Your task to perform on an android device: Open notification settings Image 0: 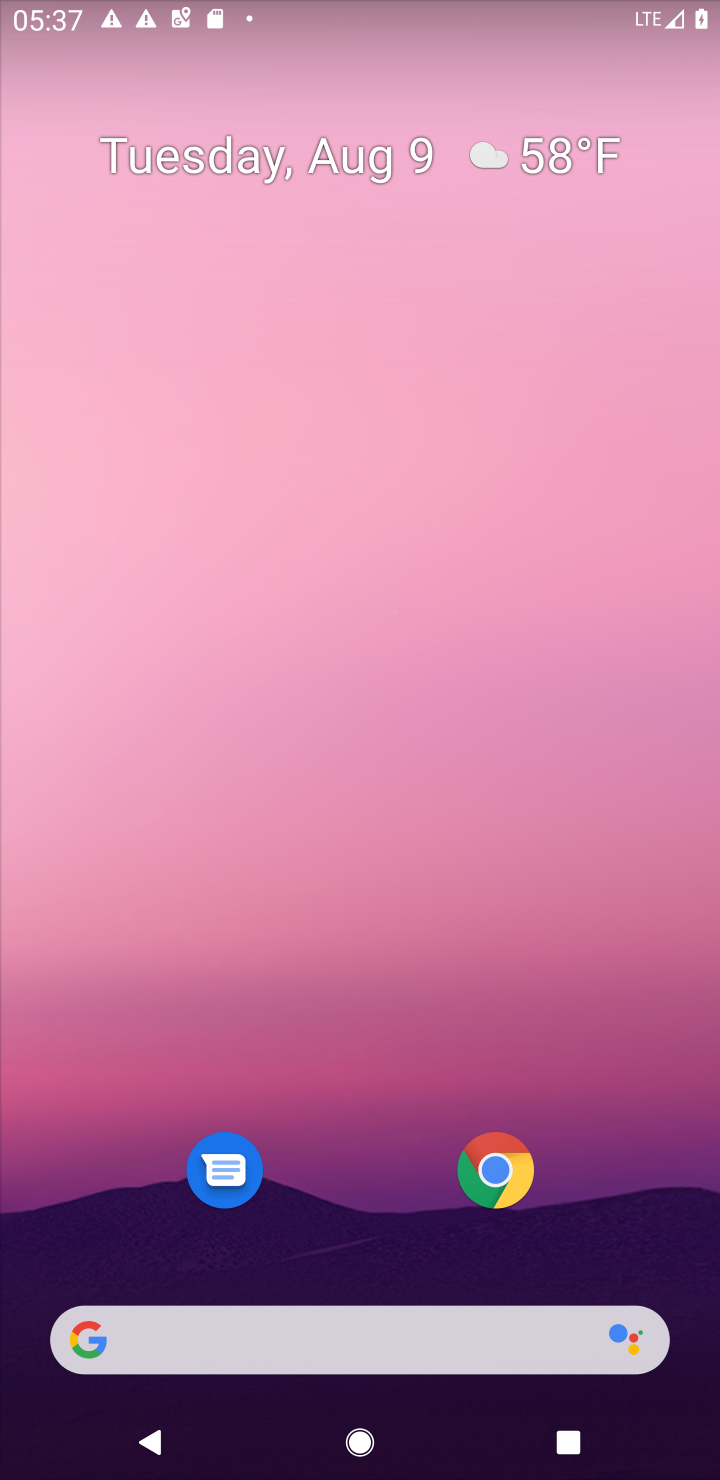
Step 0: drag from (303, 1129) to (302, 258)
Your task to perform on an android device: Open notification settings Image 1: 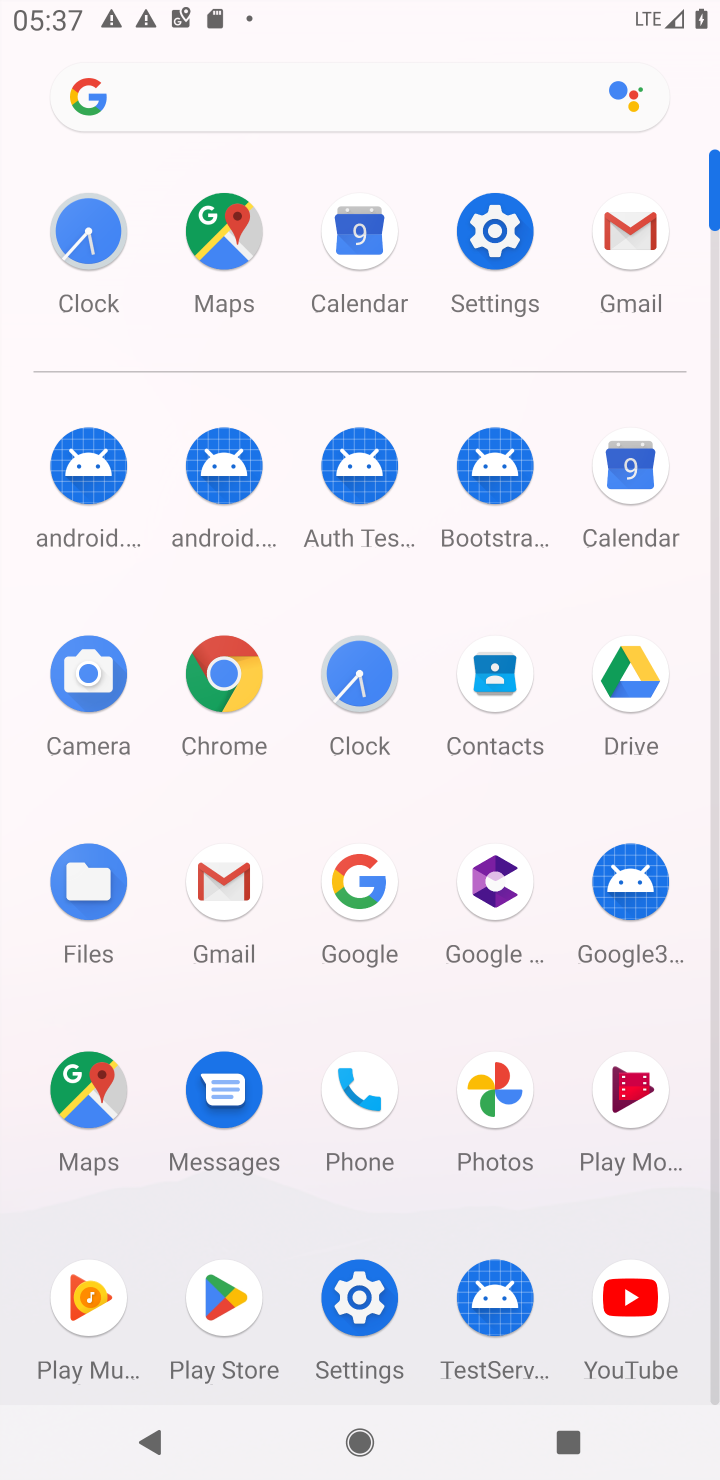
Step 1: click (478, 217)
Your task to perform on an android device: Open notification settings Image 2: 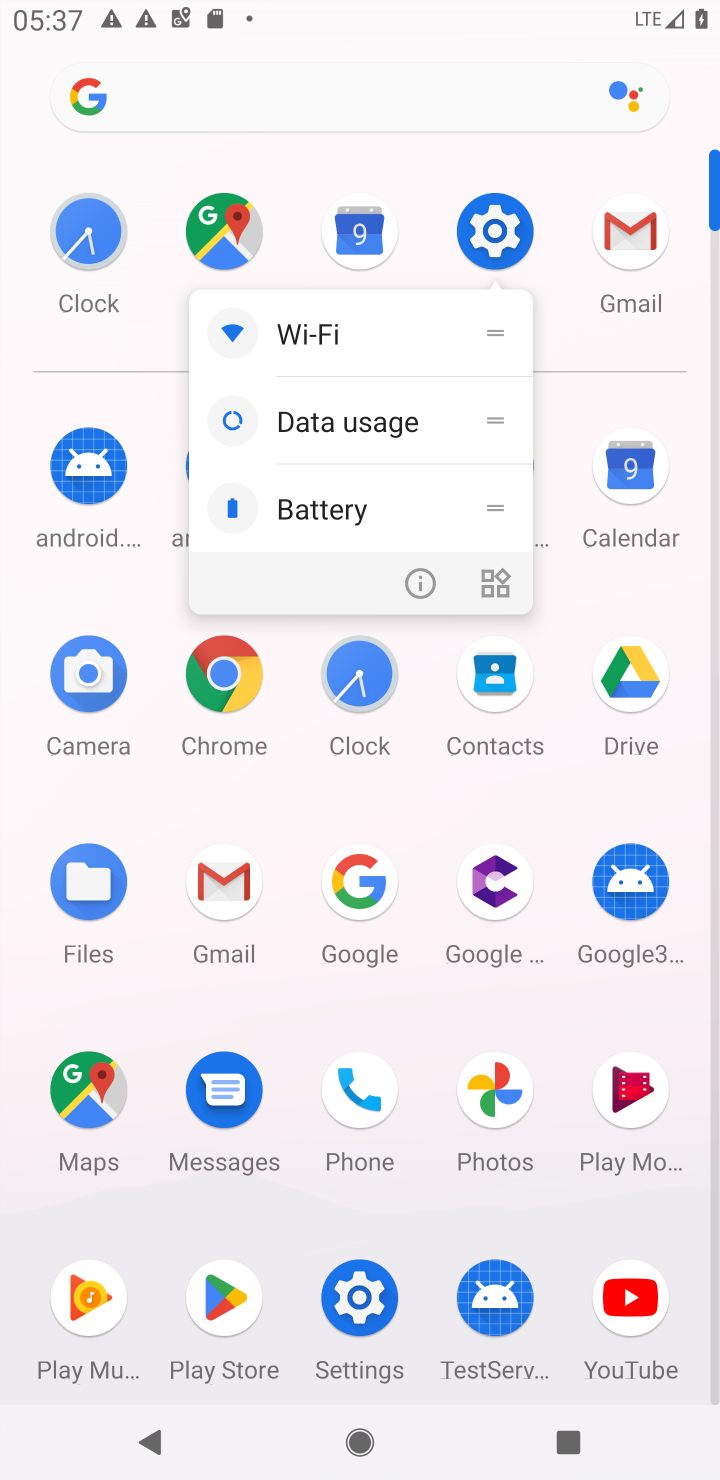
Step 2: click (508, 253)
Your task to perform on an android device: Open notification settings Image 3: 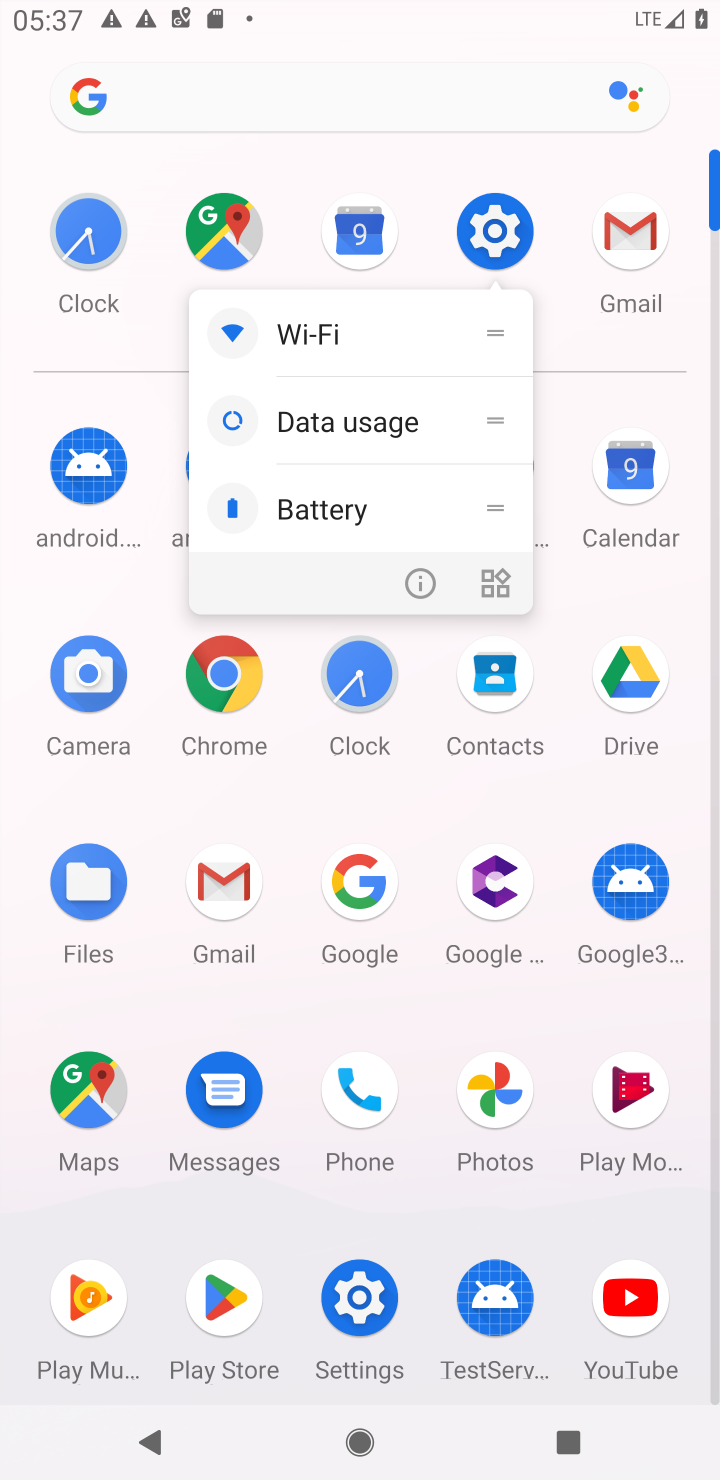
Step 3: click (508, 253)
Your task to perform on an android device: Open notification settings Image 4: 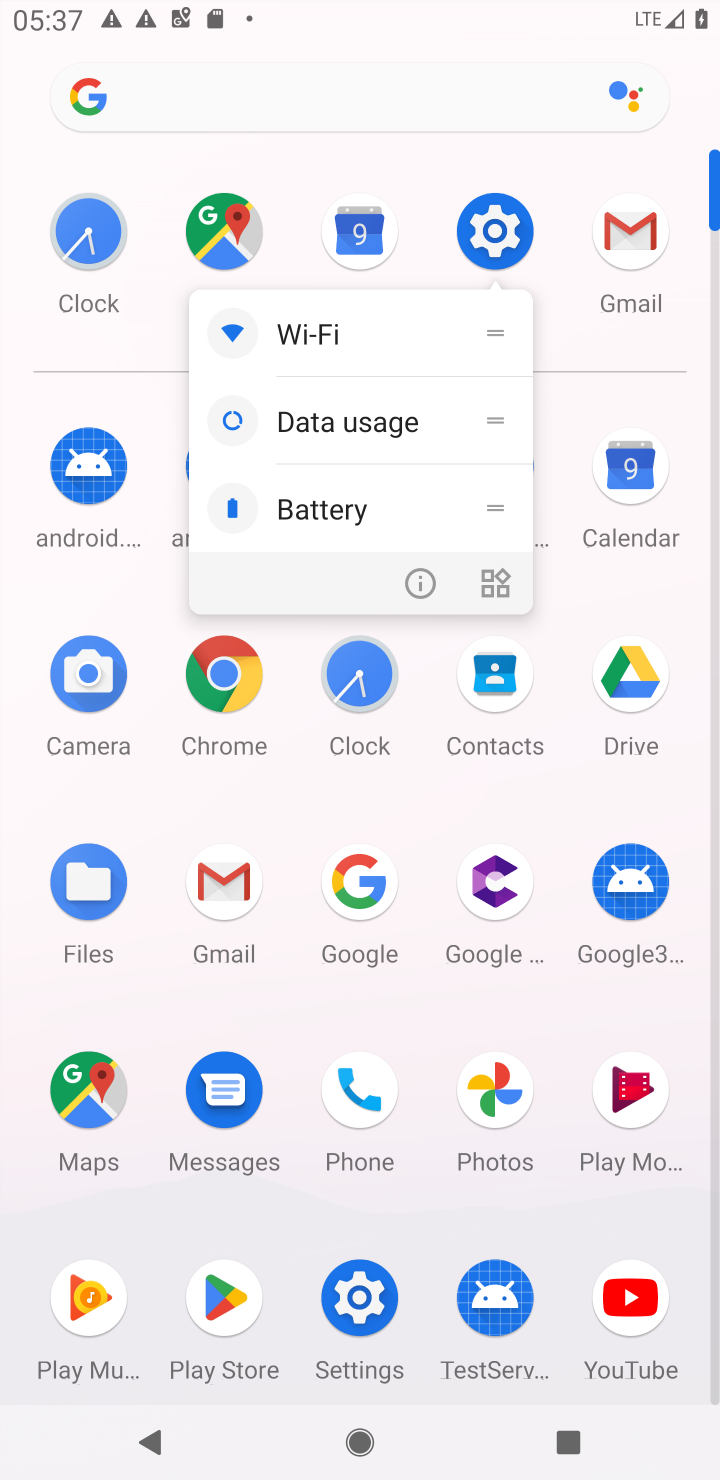
Step 4: click (514, 232)
Your task to perform on an android device: Open notification settings Image 5: 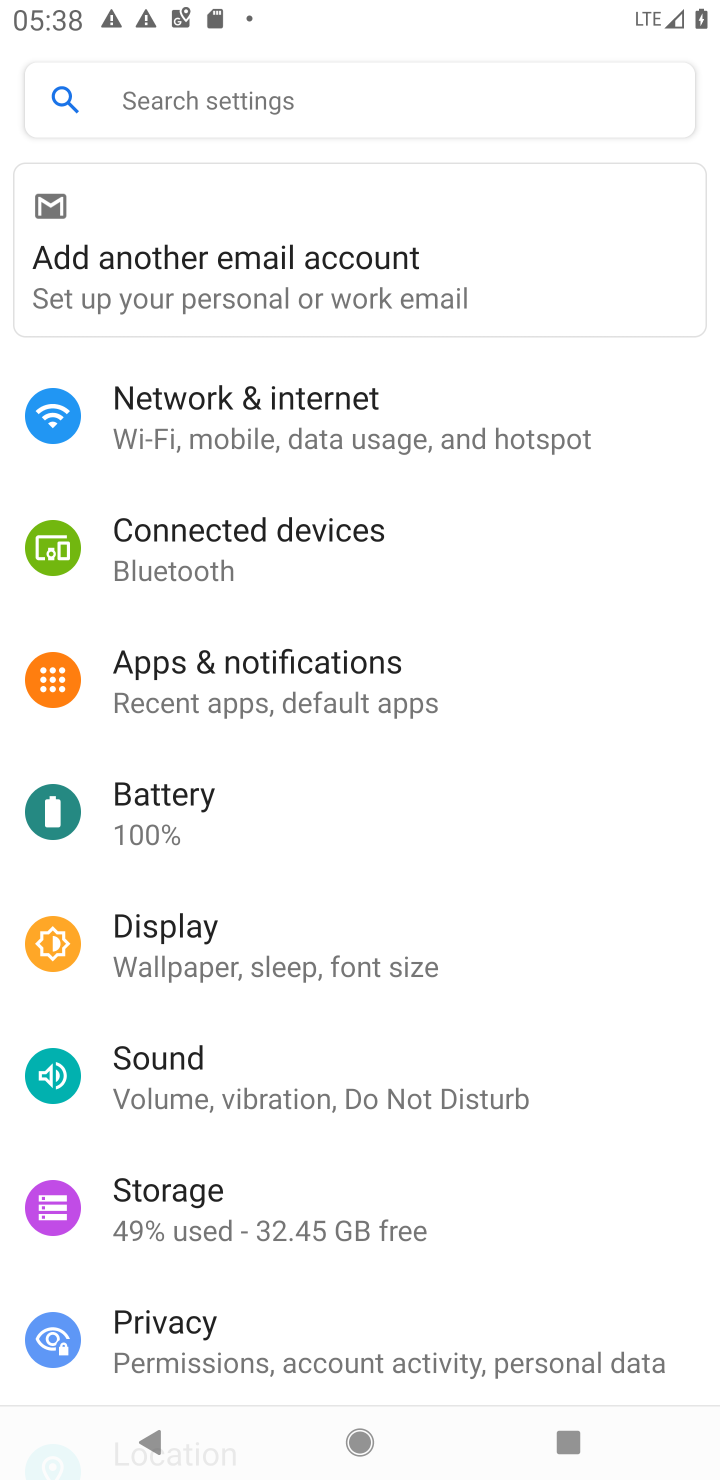
Step 5: click (315, 705)
Your task to perform on an android device: Open notification settings Image 6: 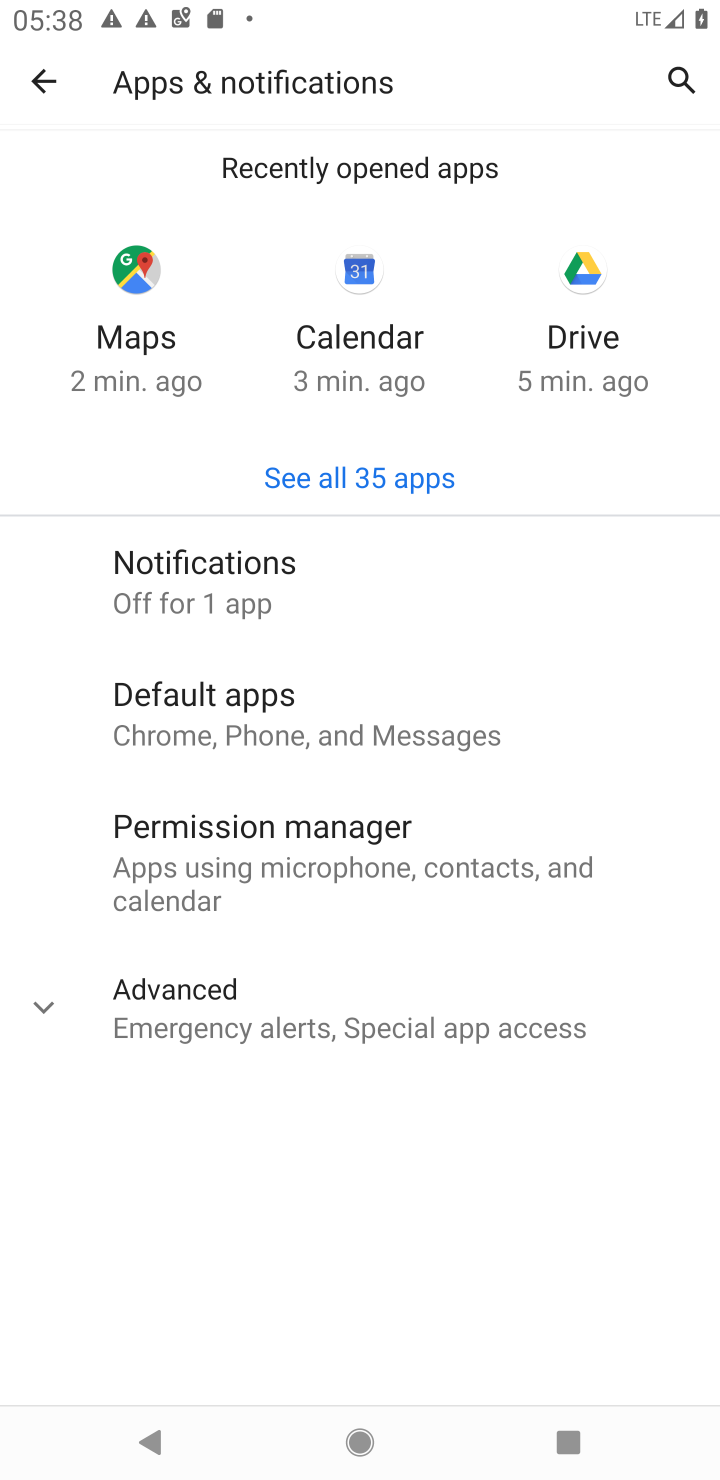
Step 6: click (206, 601)
Your task to perform on an android device: Open notification settings Image 7: 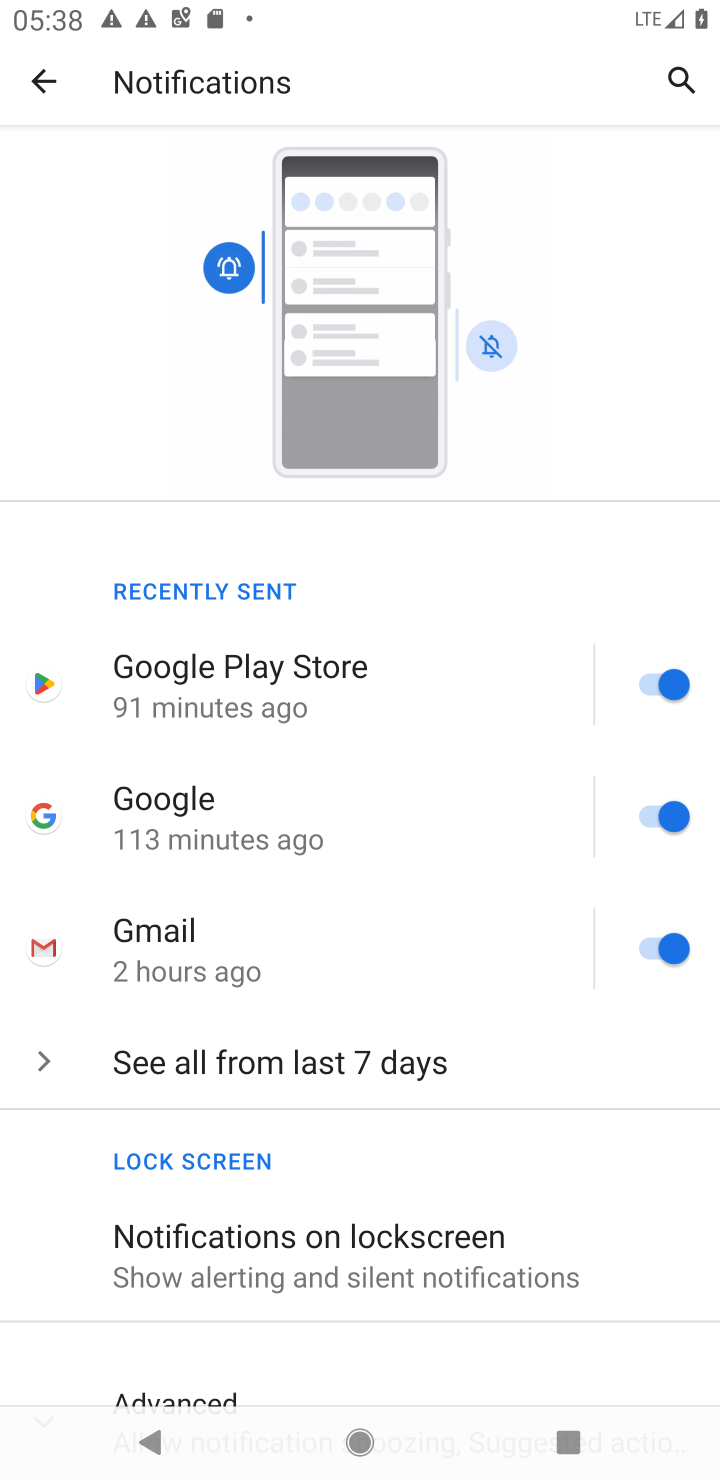
Step 7: task complete